Your task to perform on an android device: What is the news today? Image 0: 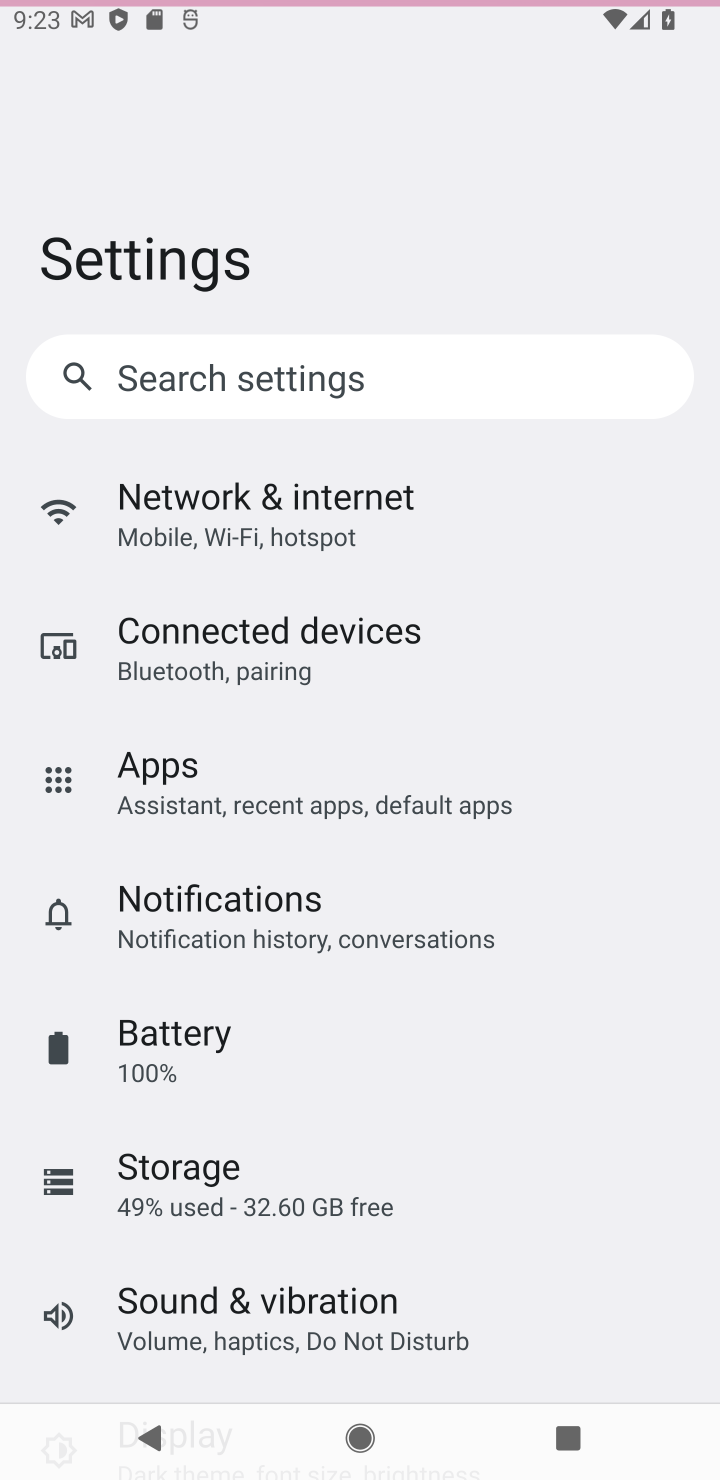
Step 0: press back button
Your task to perform on an android device: What is the news today? Image 1: 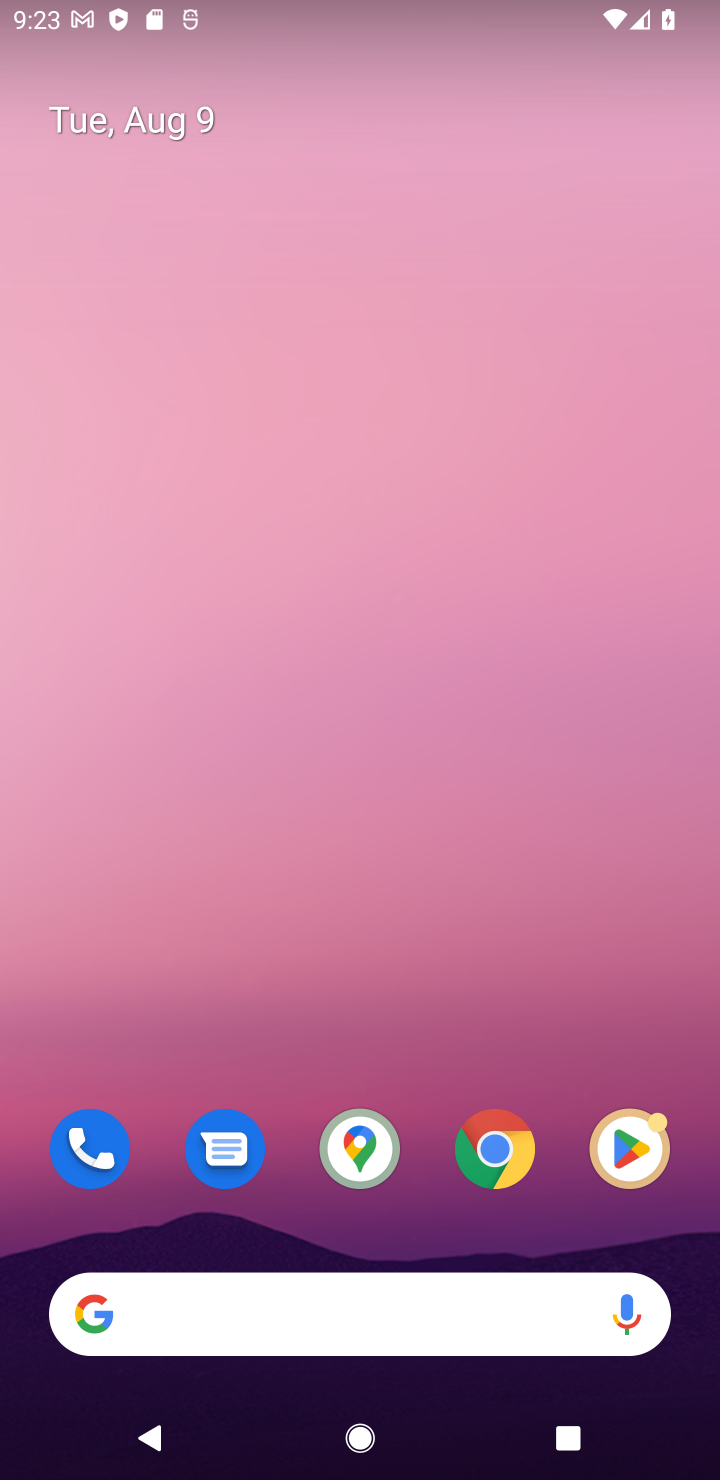
Step 1: drag from (286, 1270) to (496, 188)
Your task to perform on an android device: What is the news today? Image 2: 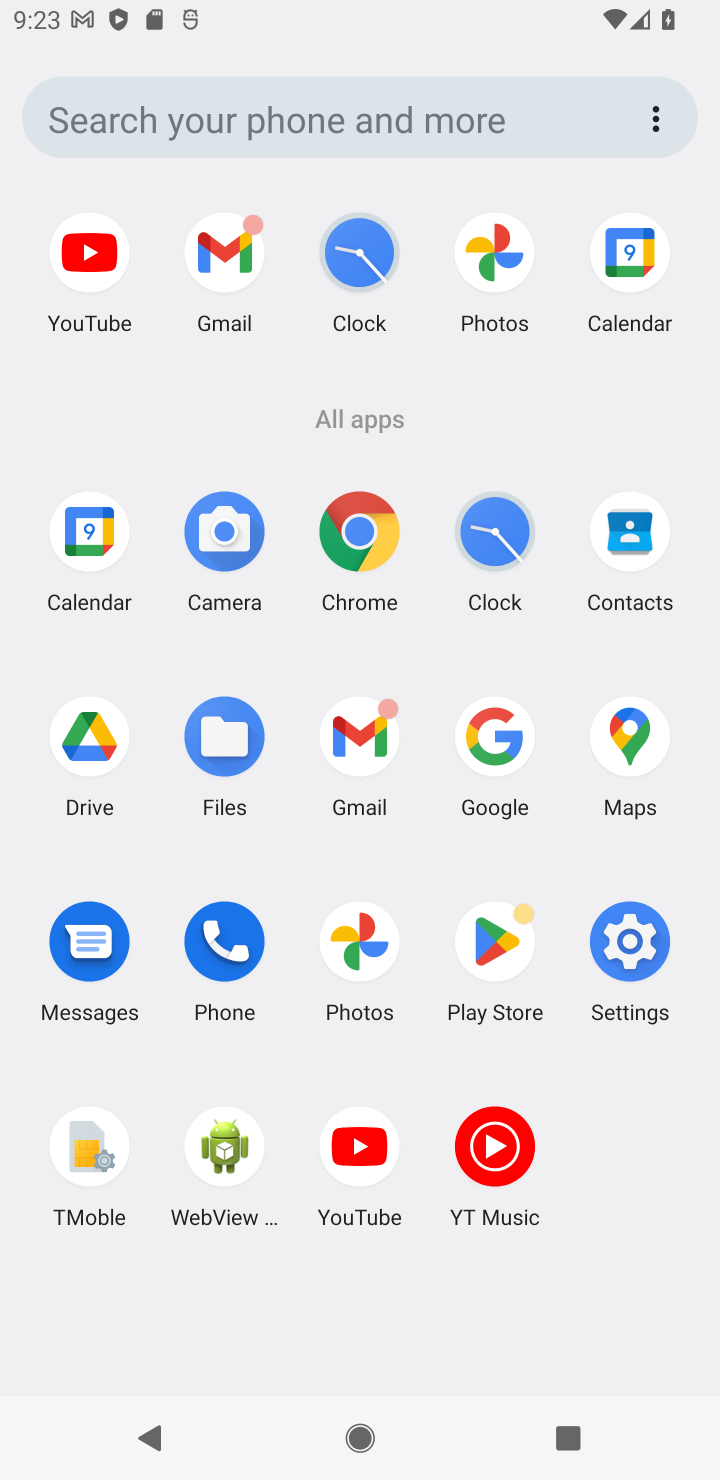
Step 2: click (521, 727)
Your task to perform on an android device: What is the news today? Image 3: 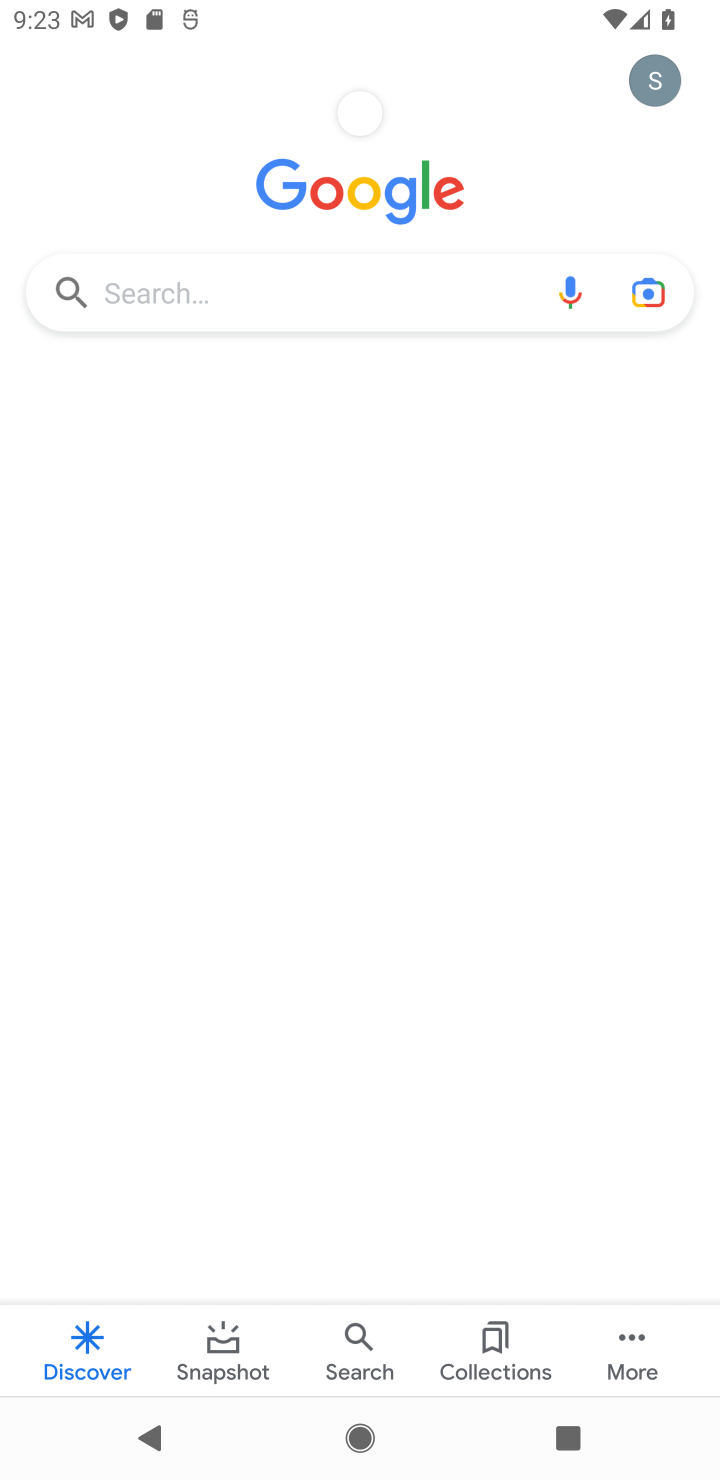
Step 3: click (350, 311)
Your task to perform on an android device: What is the news today? Image 4: 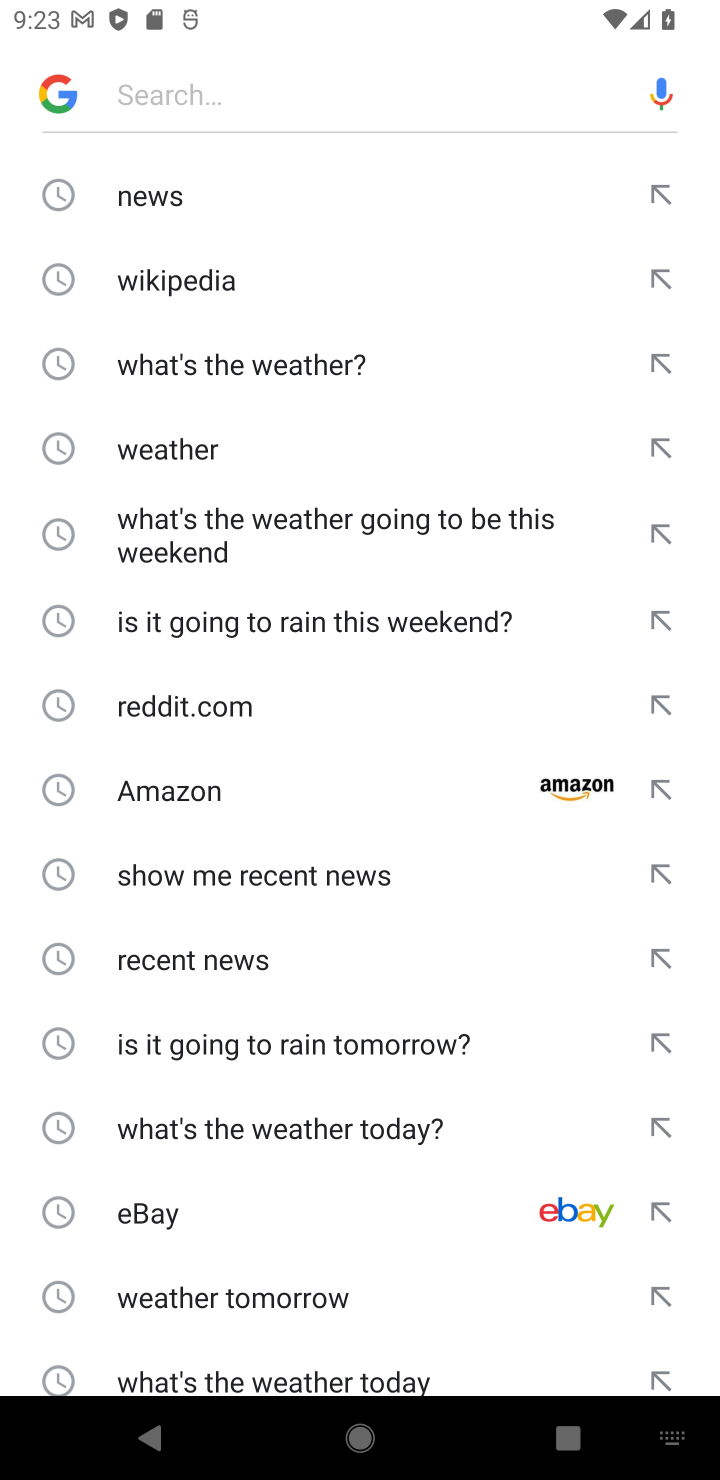
Step 4: type "news today"
Your task to perform on an android device: What is the news today? Image 5: 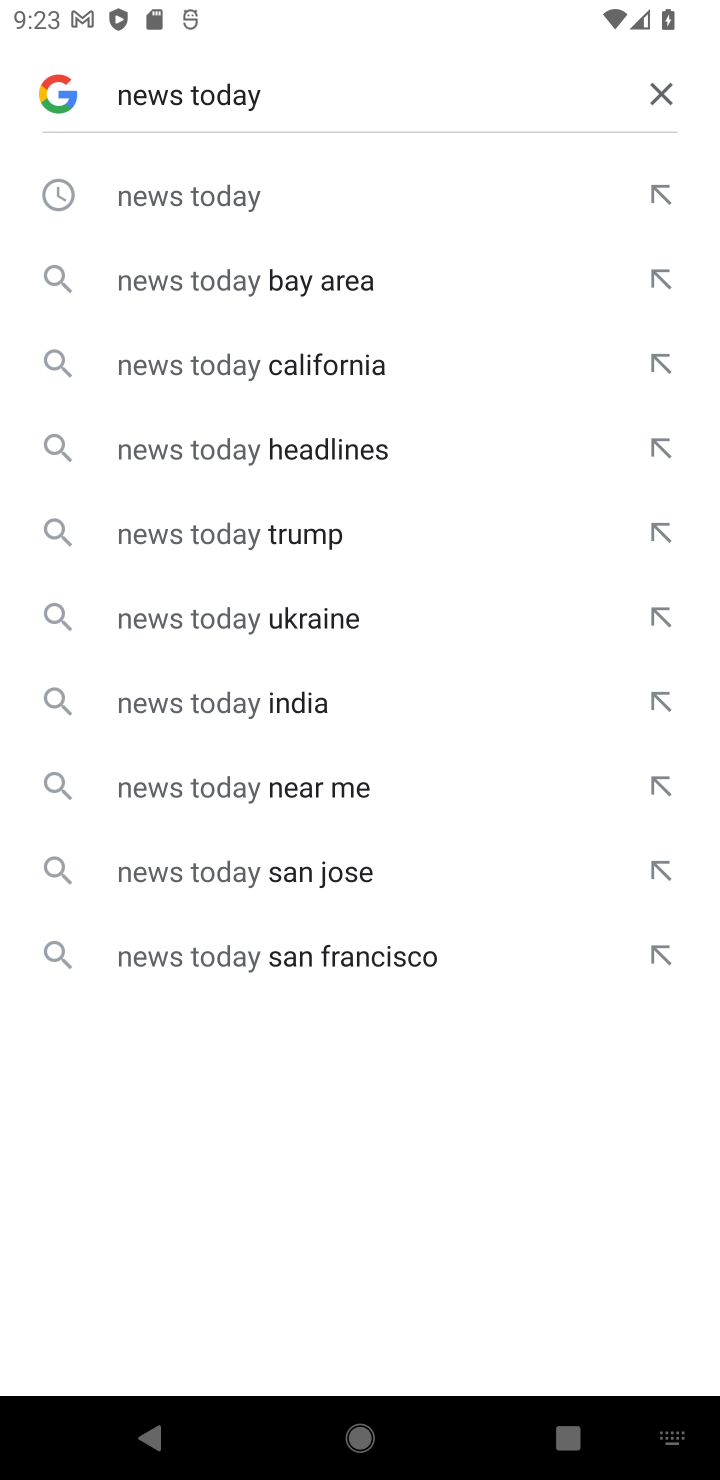
Step 5: click (266, 192)
Your task to perform on an android device: What is the news today? Image 6: 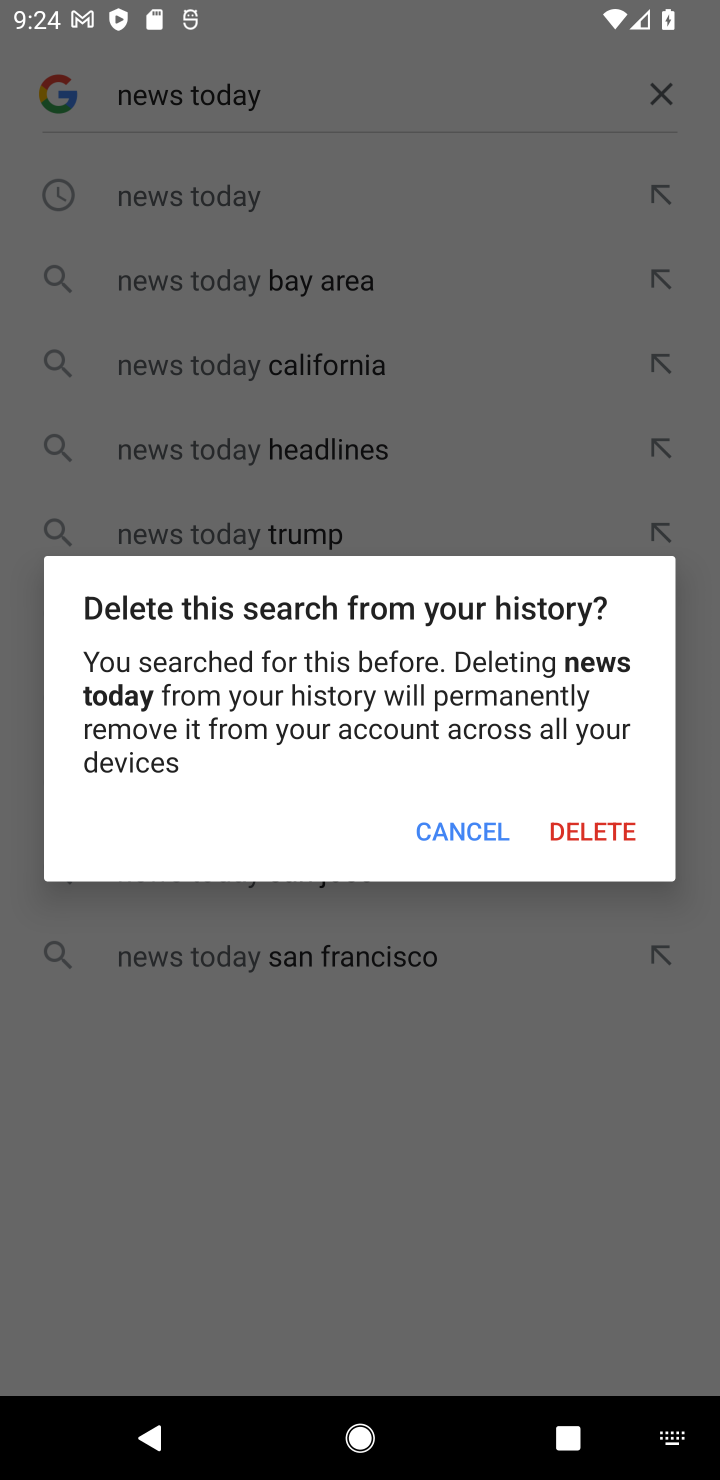
Step 6: click (462, 841)
Your task to perform on an android device: What is the news today? Image 7: 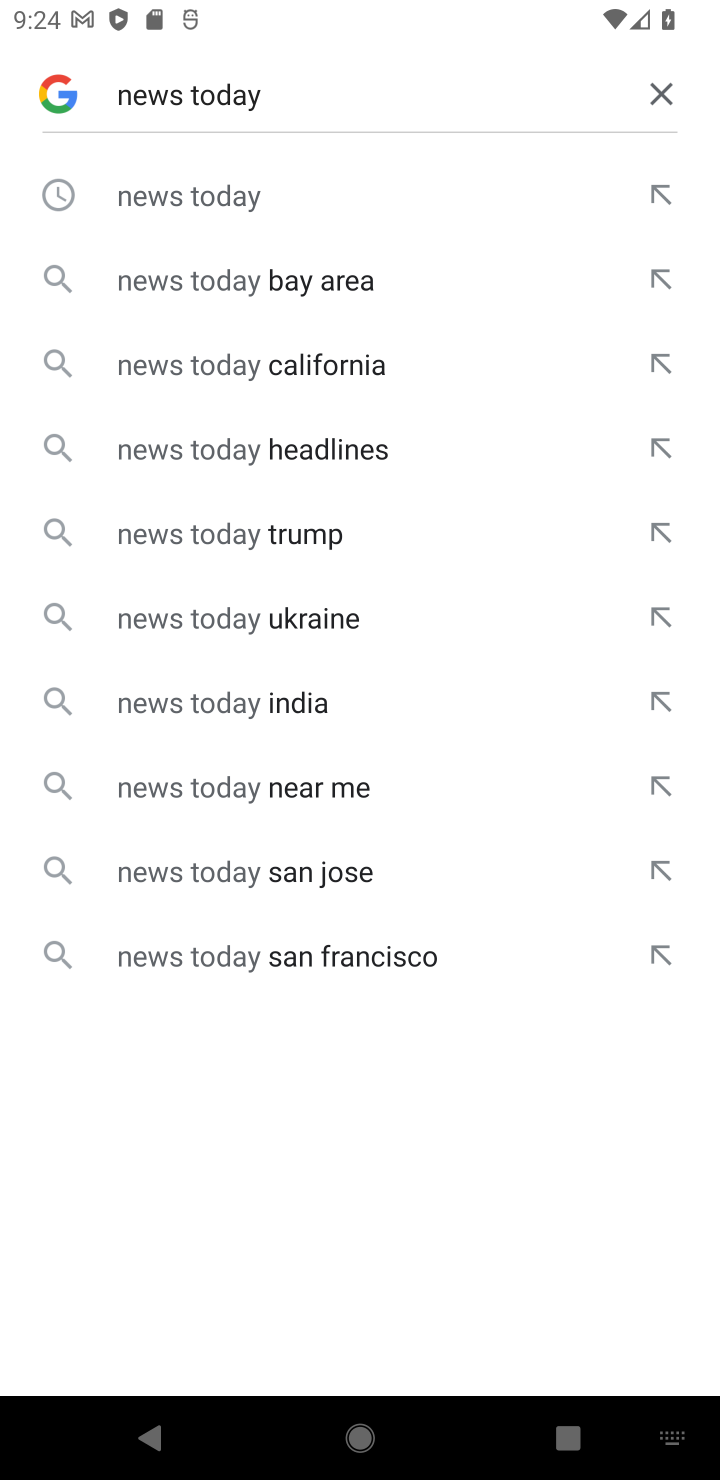
Step 7: click (274, 175)
Your task to perform on an android device: What is the news today? Image 8: 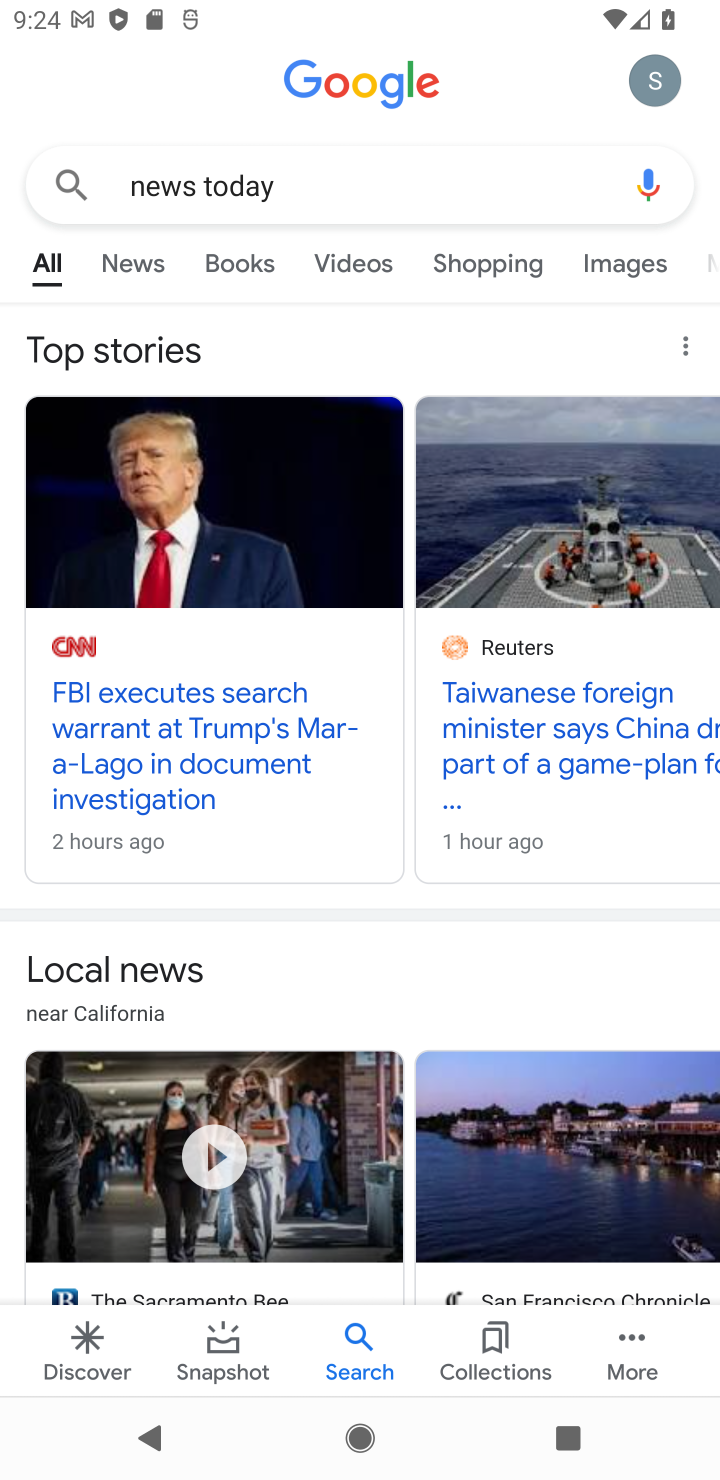
Step 8: task complete